Your task to perform on an android device: Open CNN.com Image 0: 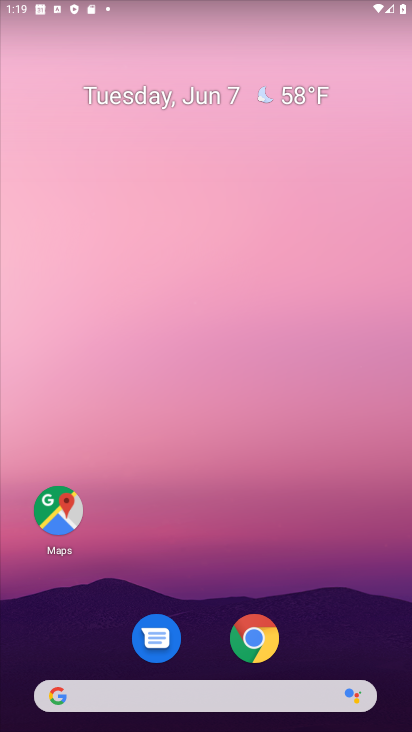
Step 0: drag from (206, 665) to (253, 230)
Your task to perform on an android device: Open CNN.com Image 1: 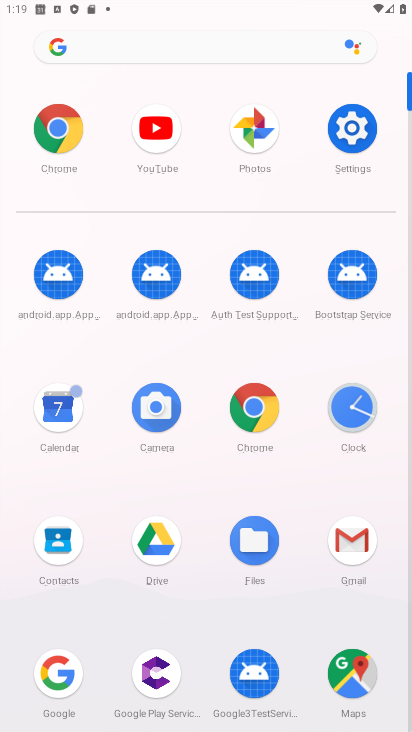
Step 1: click (250, 414)
Your task to perform on an android device: Open CNN.com Image 2: 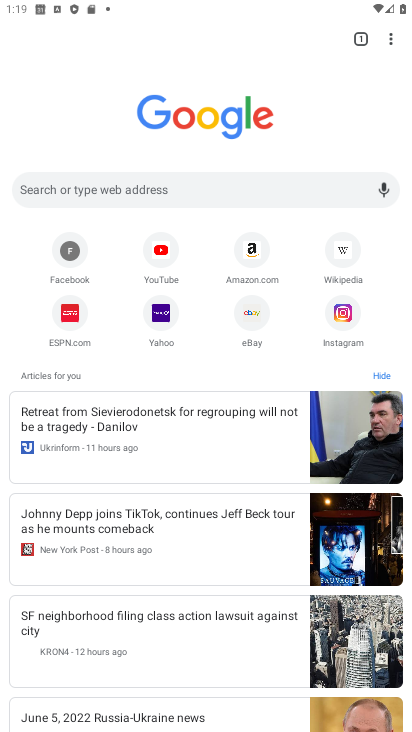
Step 2: click (68, 192)
Your task to perform on an android device: Open CNN.com Image 3: 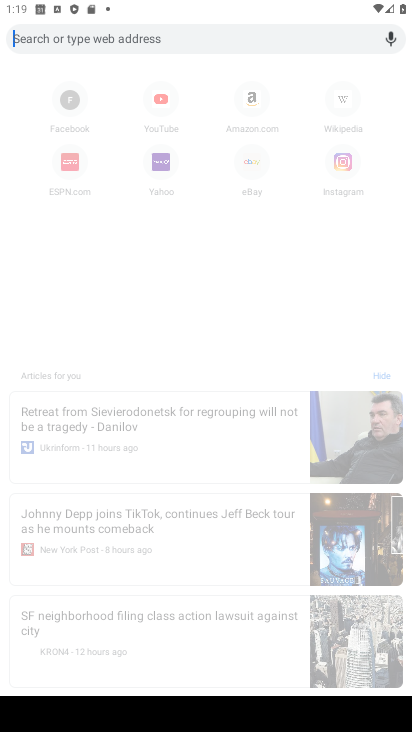
Step 3: type "CNN.com"
Your task to perform on an android device: Open CNN.com Image 4: 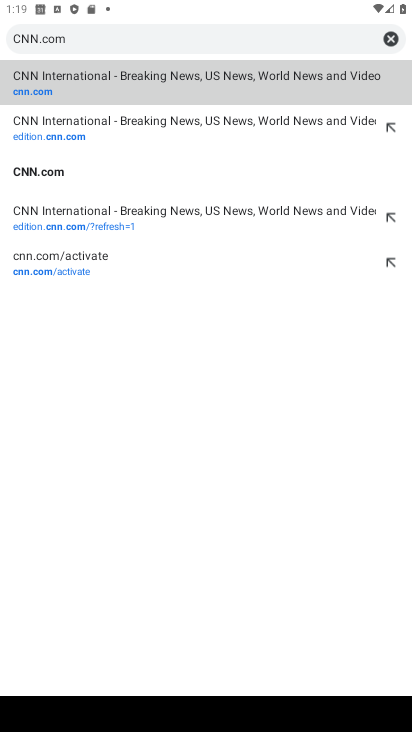
Step 4: click (61, 173)
Your task to perform on an android device: Open CNN.com Image 5: 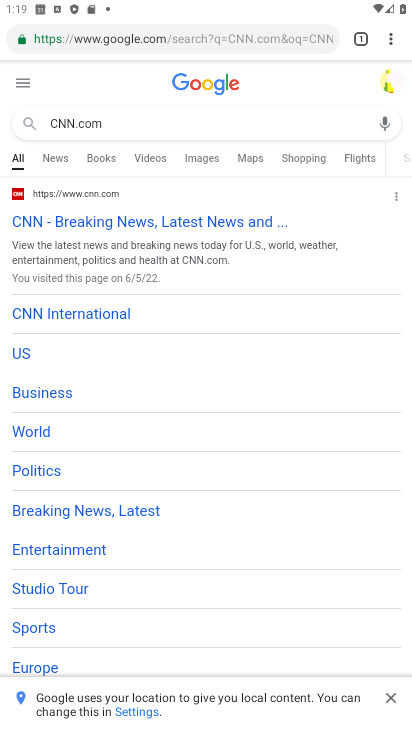
Step 5: task complete